Your task to perform on an android device: Open calendar and show me the third week of next month Image 0: 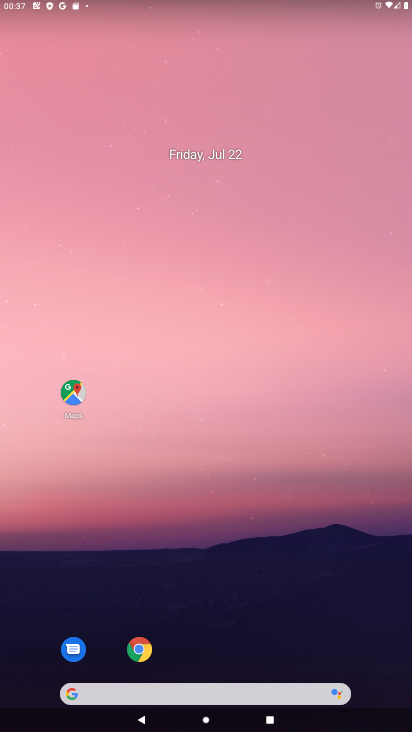
Step 0: drag from (232, 661) to (235, 104)
Your task to perform on an android device: Open calendar and show me the third week of next month Image 1: 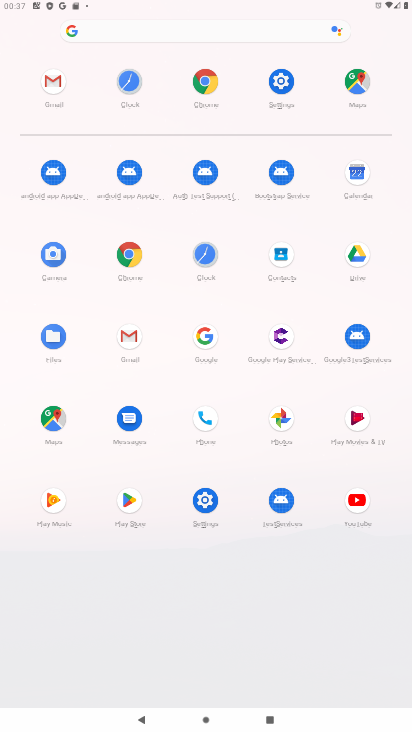
Step 1: click (361, 169)
Your task to perform on an android device: Open calendar and show me the third week of next month Image 2: 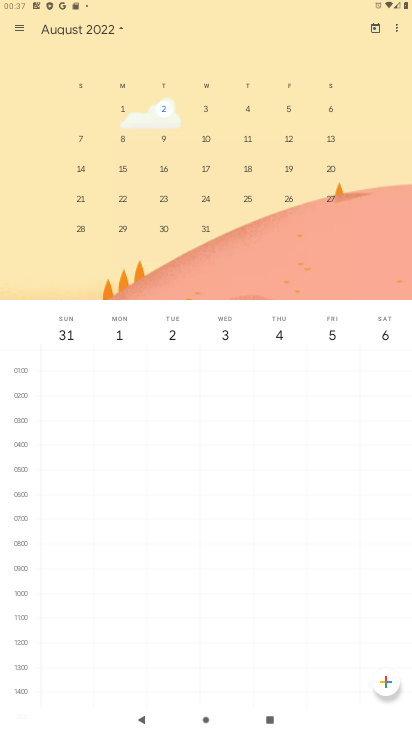
Step 2: click (166, 170)
Your task to perform on an android device: Open calendar and show me the third week of next month Image 3: 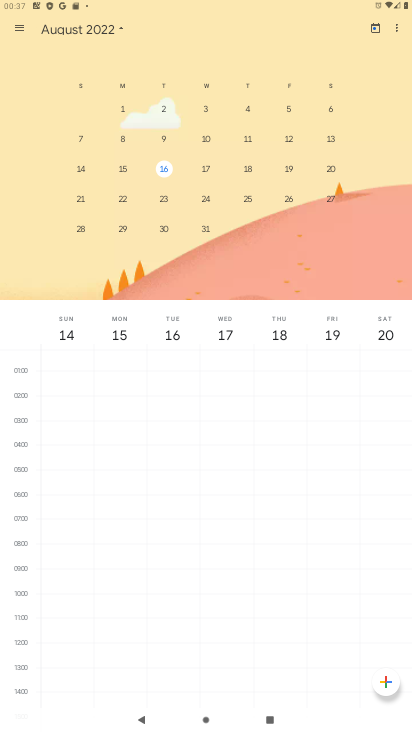
Step 3: task complete